Your task to perform on an android device: turn off location Image 0: 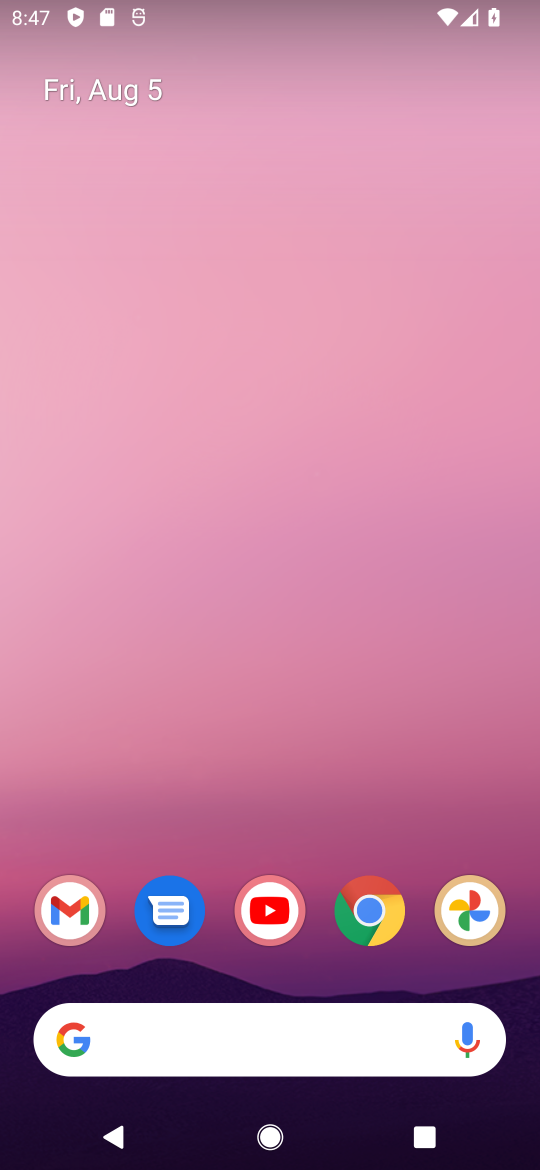
Step 0: drag from (271, 993) to (235, 369)
Your task to perform on an android device: turn off location Image 1: 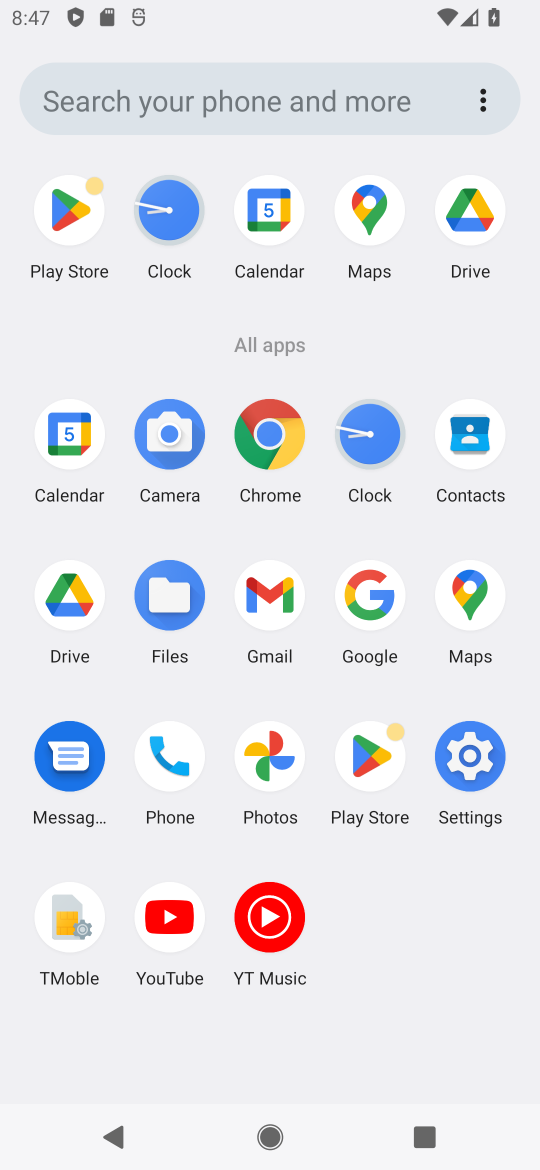
Step 1: click (462, 766)
Your task to perform on an android device: turn off location Image 2: 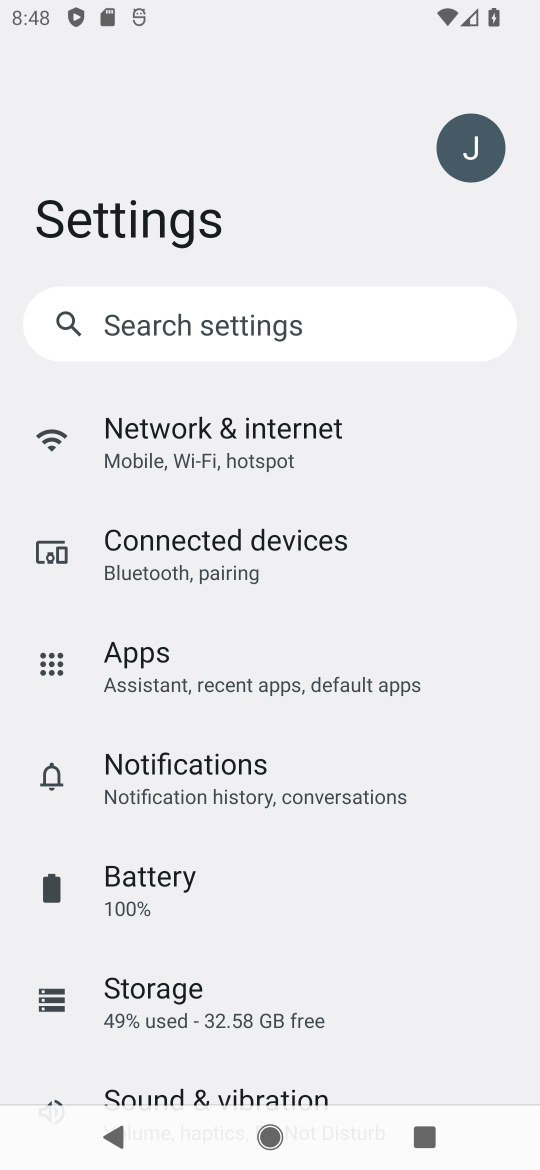
Step 2: drag from (202, 953) to (111, 331)
Your task to perform on an android device: turn off location Image 3: 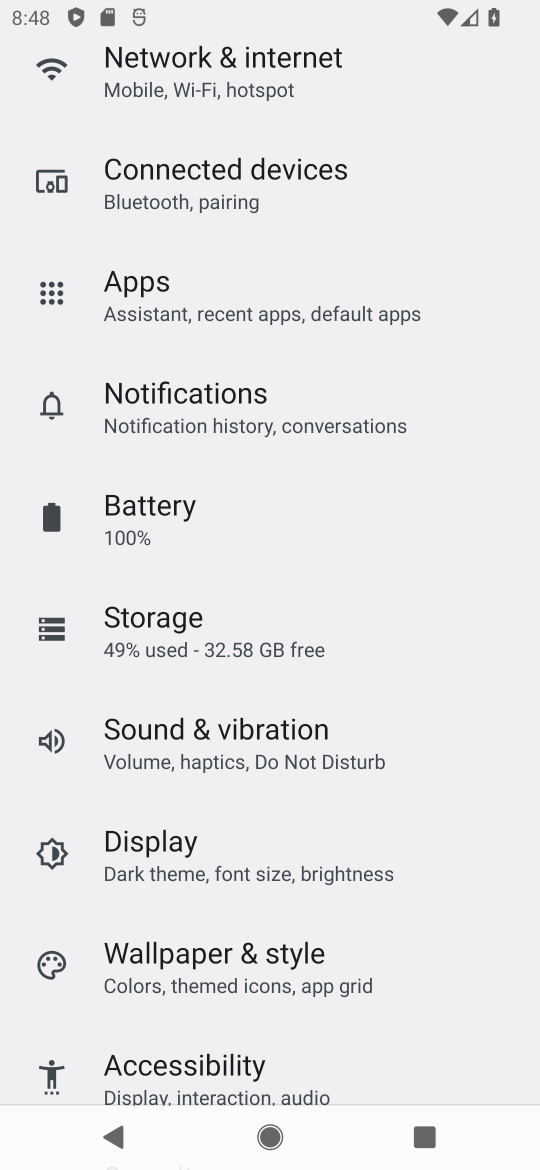
Step 3: drag from (161, 1068) to (141, 325)
Your task to perform on an android device: turn off location Image 4: 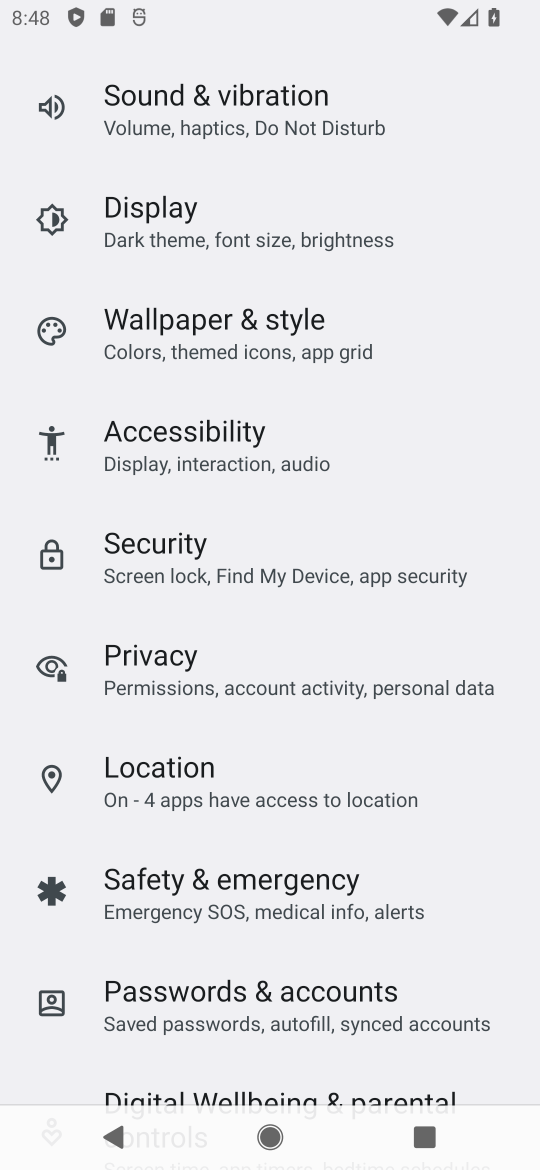
Step 4: click (229, 792)
Your task to perform on an android device: turn off location Image 5: 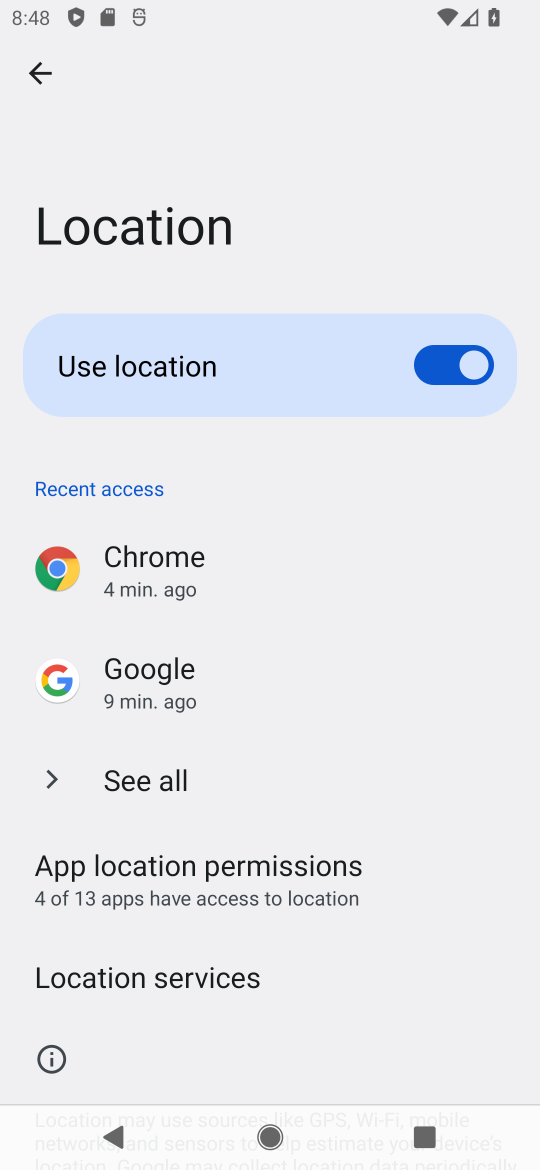
Step 5: click (433, 370)
Your task to perform on an android device: turn off location Image 6: 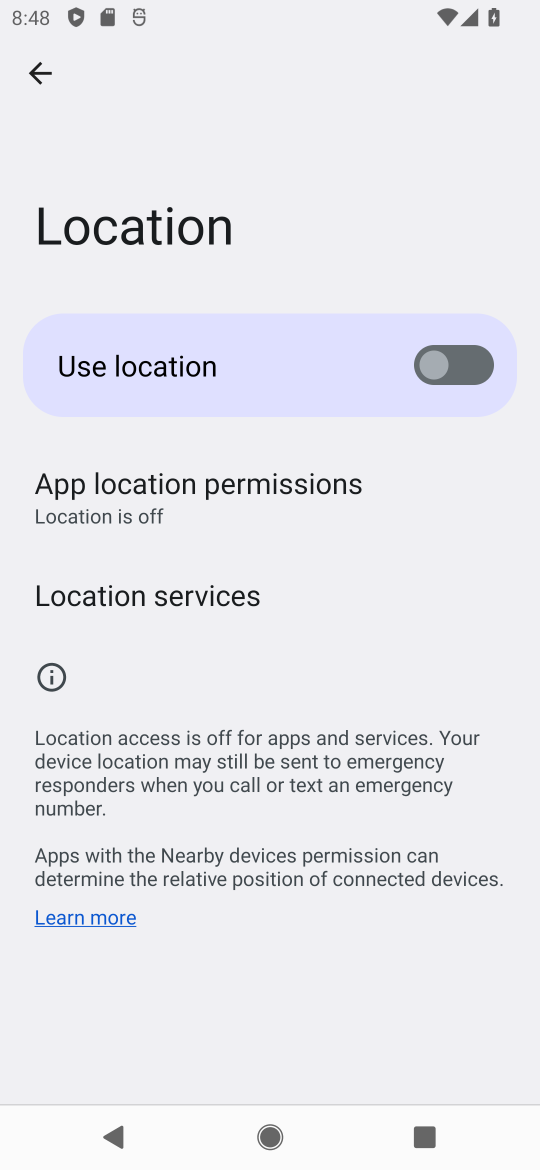
Step 6: task complete